Your task to perform on an android device: Open accessibility settings Image 0: 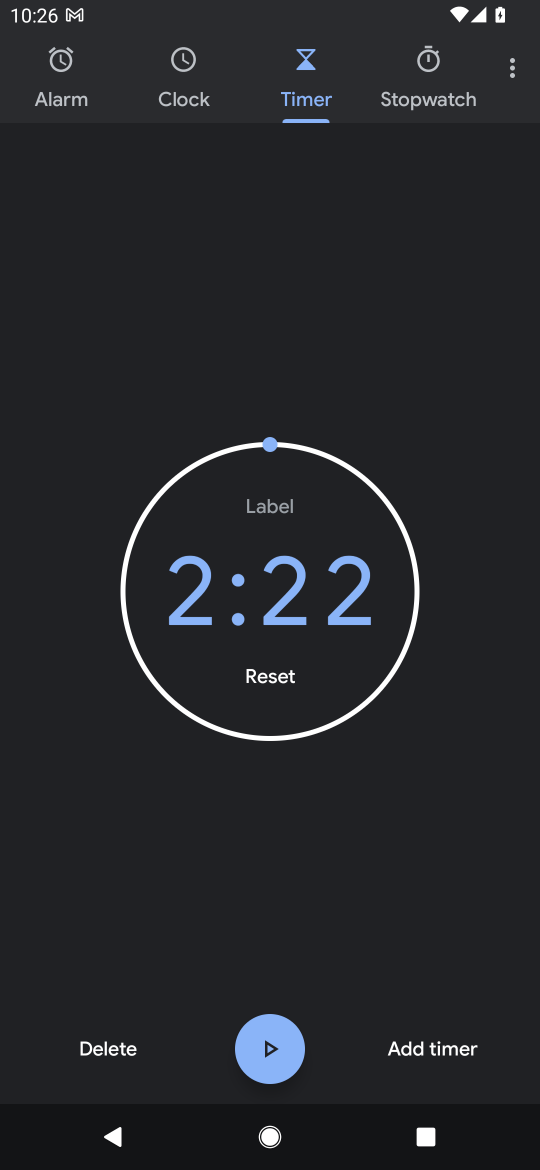
Step 0: press home button
Your task to perform on an android device: Open accessibility settings Image 1: 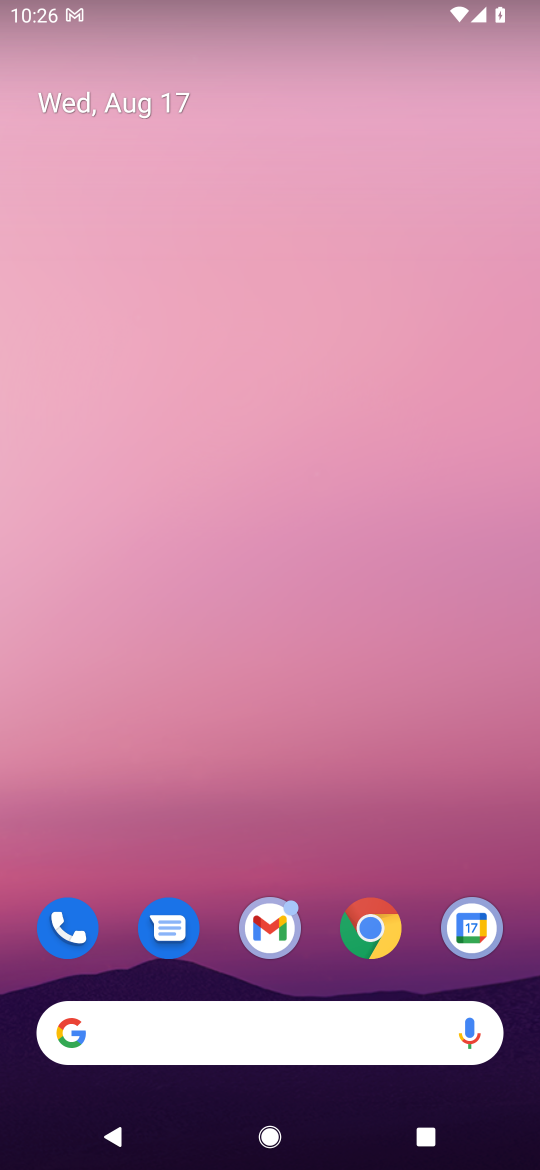
Step 1: drag from (388, 851) to (327, 234)
Your task to perform on an android device: Open accessibility settings Image 2: 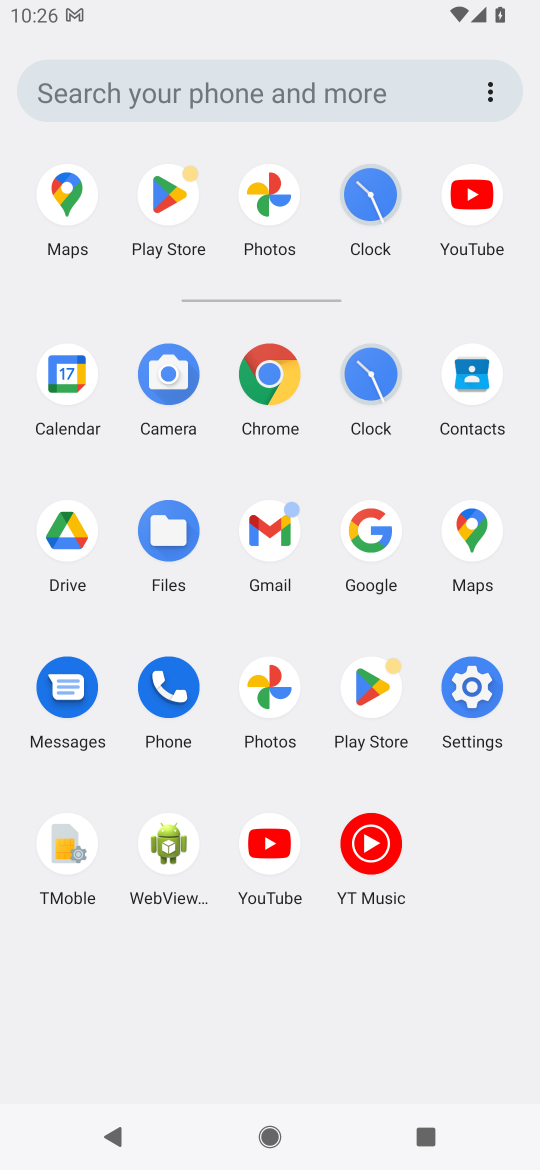
Step 2: click (461, 711)
Your task to perform on an android device: Open accessibility settings Image 3: 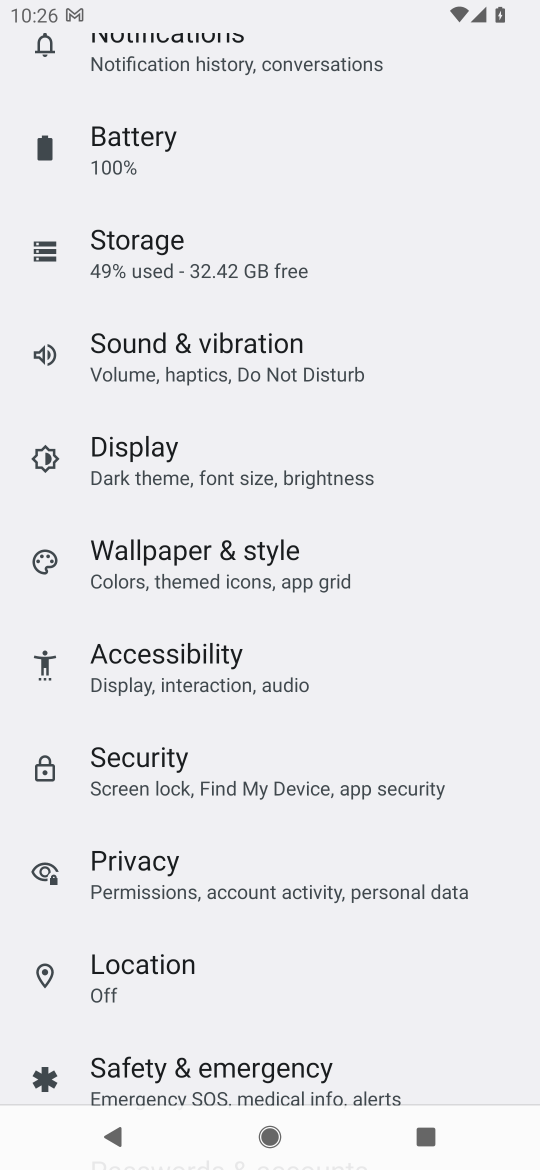
Step 3: drag from (188, 248) to (287, 361)
Your task to perform on an android device: Open accessibility settings Image 4: 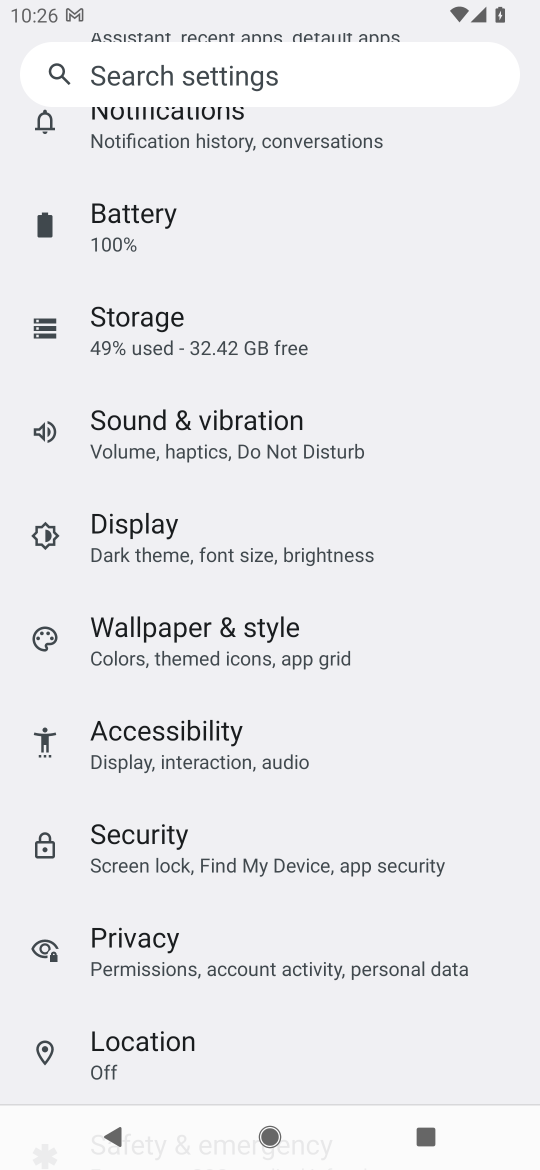
Step 4: click (356, 745)
Your task to perform on an android device: Open accessibility settings Image 5: 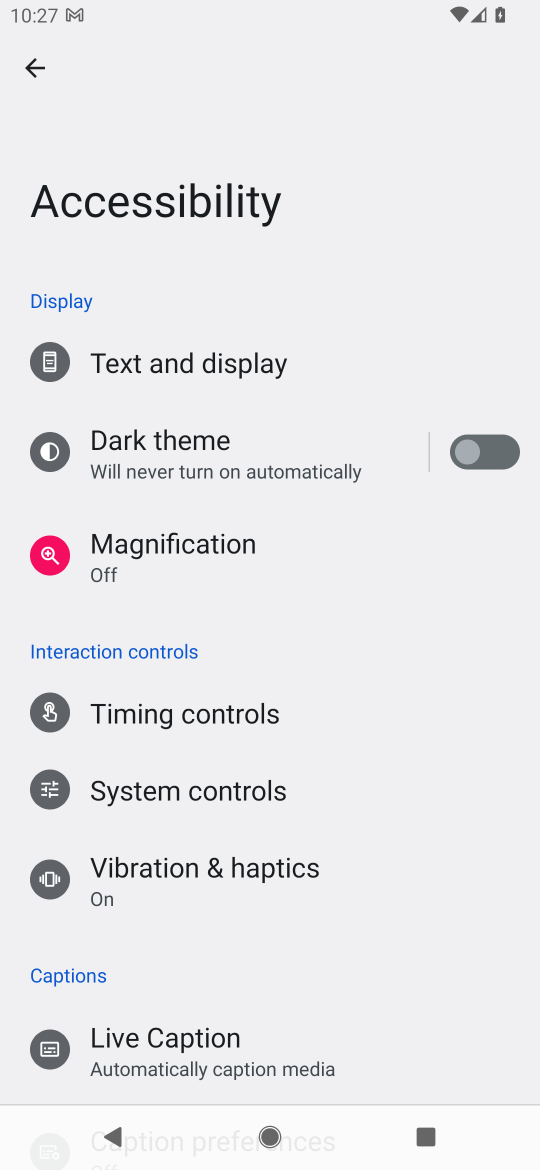
Step 5: task complete